Your task to perform on an android device: toggle sleep mode Image 0: 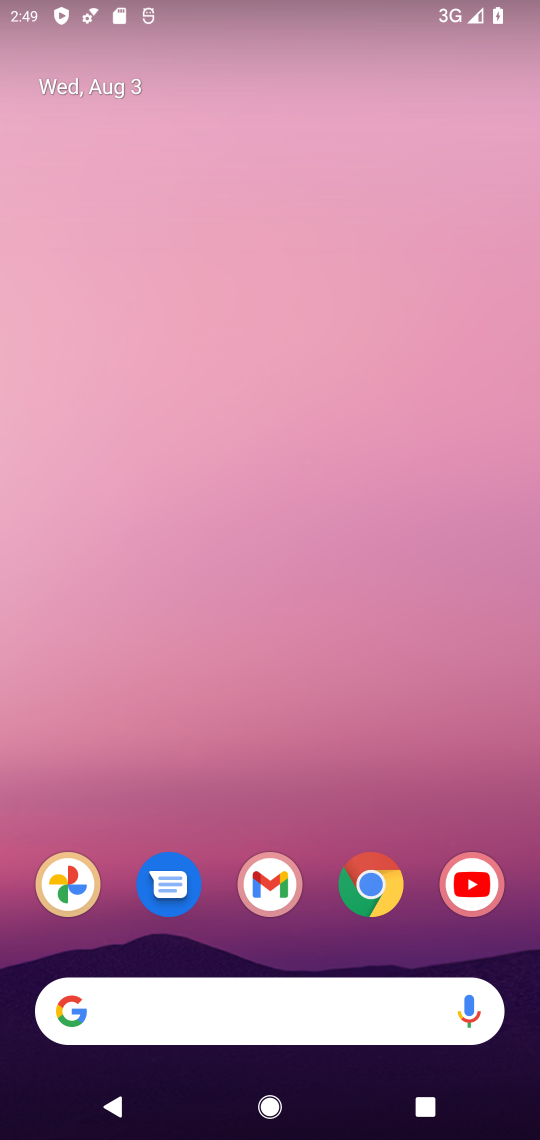
Step 0: drag from (219, 941) to (511, 22)
Your task to perform on an android device: toggle sleep mode Image 1: 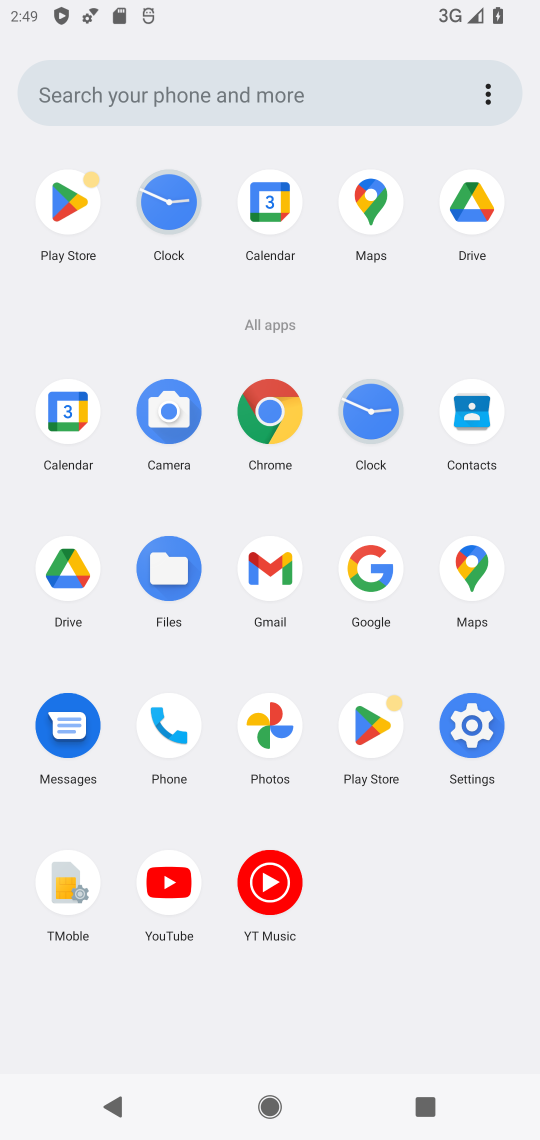
Step 1: click (465, 737)
Your task to perform on an android device: toggle sleep mode Image 2: 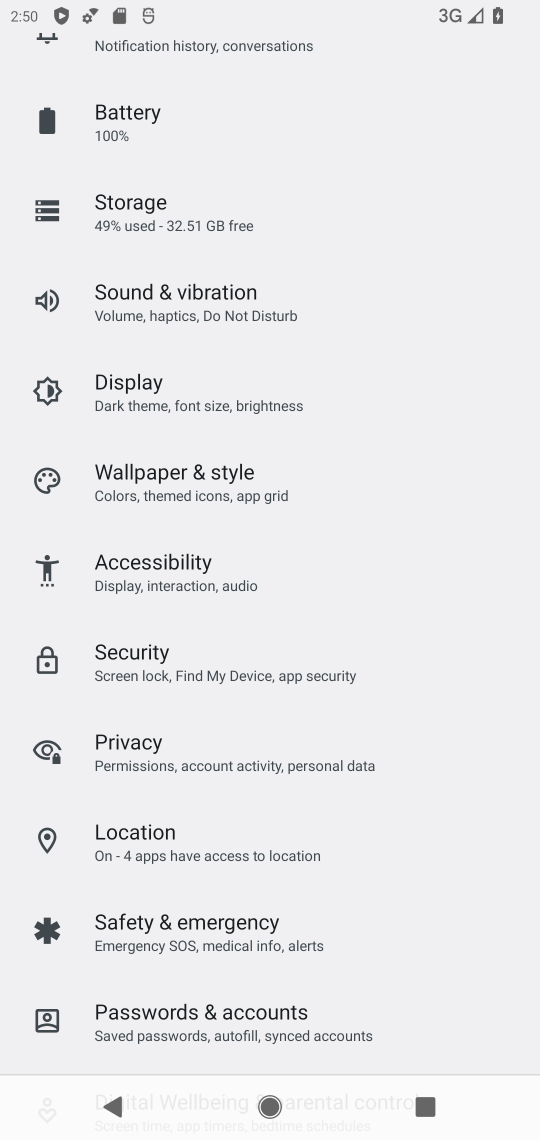
Step 2: click (249, 417)
Your task to perform on an android device: toggle sleep mode Image 3: 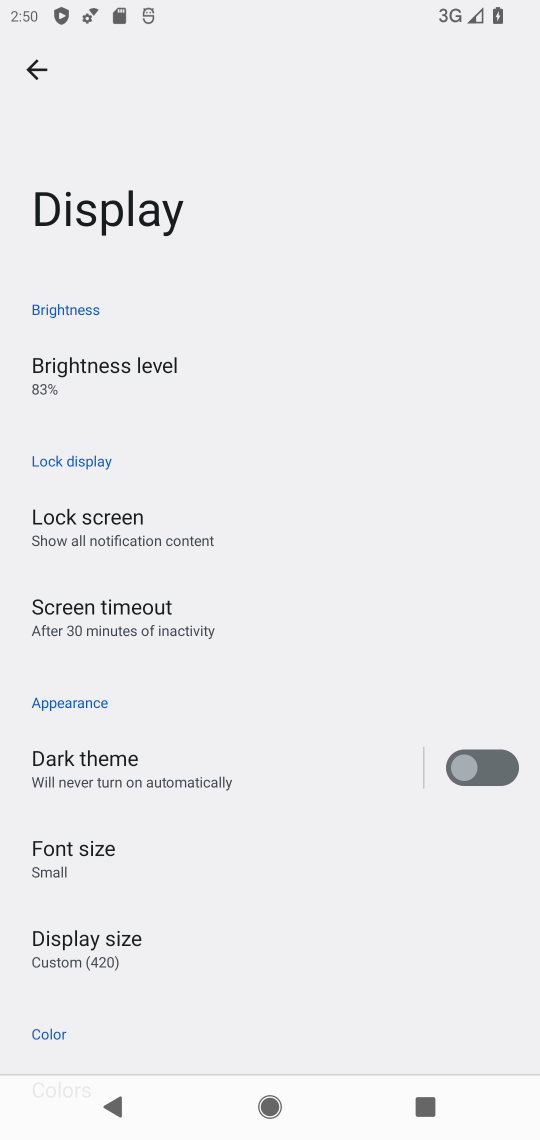
Step 3: click (486, 776)
Your task to perform on an android device: toggle sleep mode Image 4: 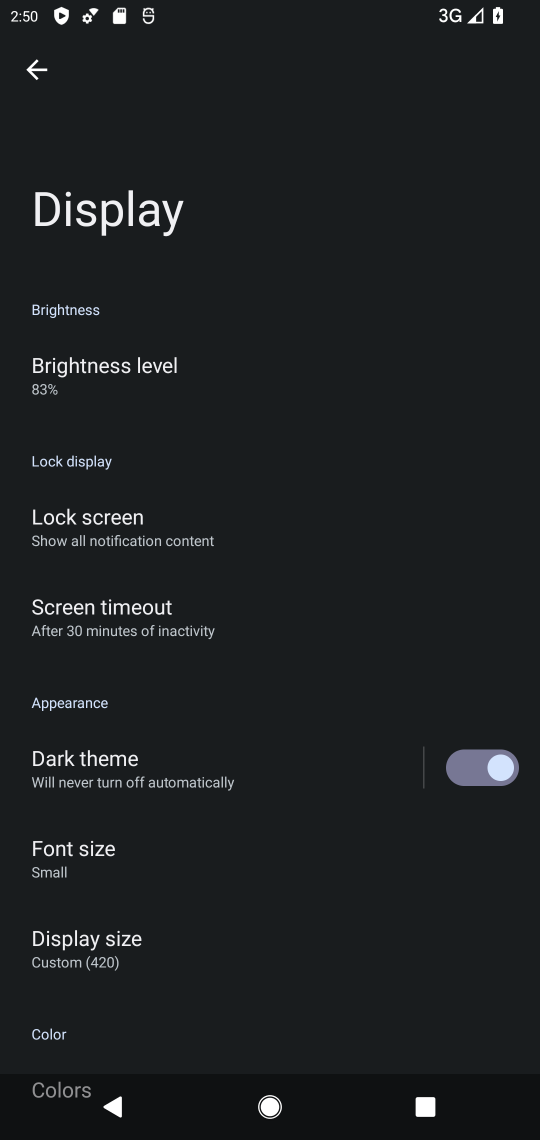
Step 4: task complete